Your task to perform on an android device: Open maps Image 0: 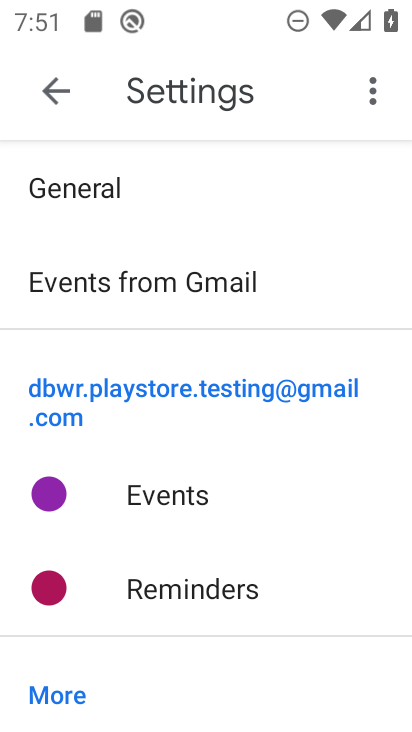
Step 0: press home button
Your task to perform on an android device: Open maps Image 1: 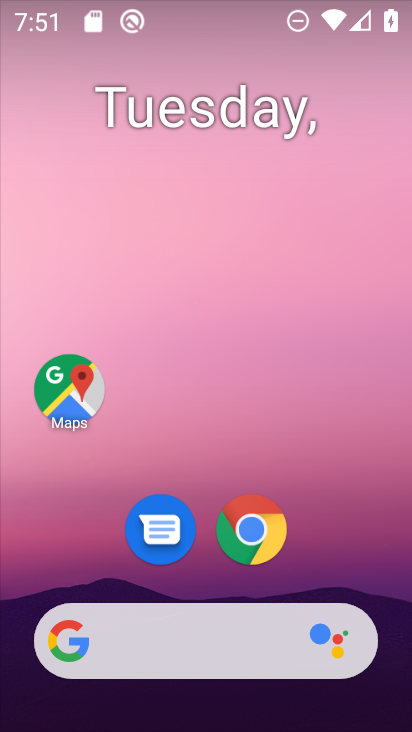
Step 1: drag from (165, 605) to (314, 67)
Your task to perform on an android device: Open maps Image 2: 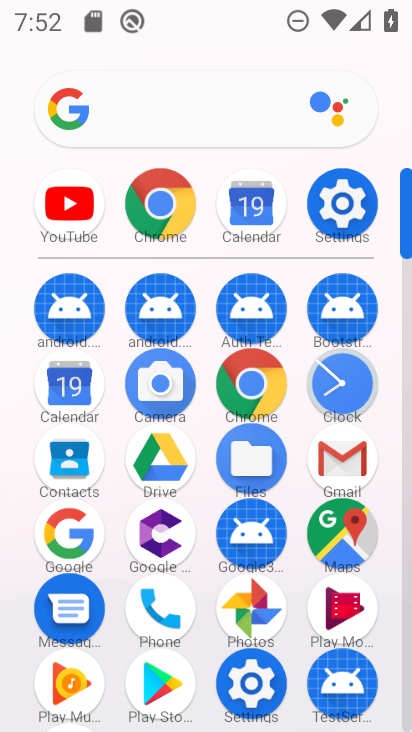
Step 2: drag from (206, 602) to (343, 189)
Your task to perform on an android device: Open maps Image 3: 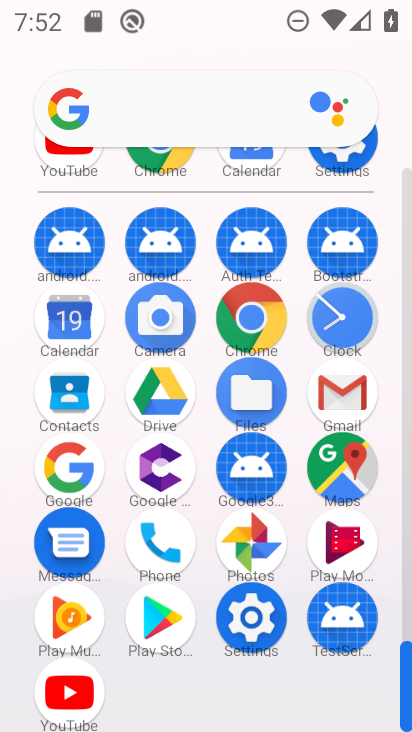
Step 3: drag from (208, 201) to (161, 635)
Your task to perform on an android device: Open maps Image 4: 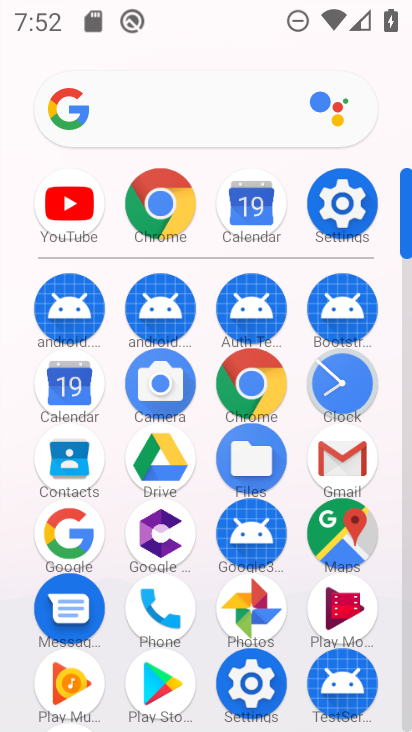
Step 4: click (343, 541)
Your task to perform on an android device: Open maps Image 5: 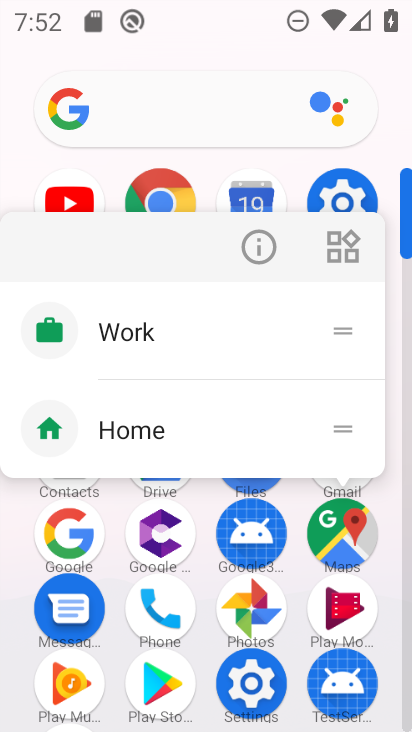
Step 5: click (342, 537)
Your task to perform on an android device: Open maps Image 6: 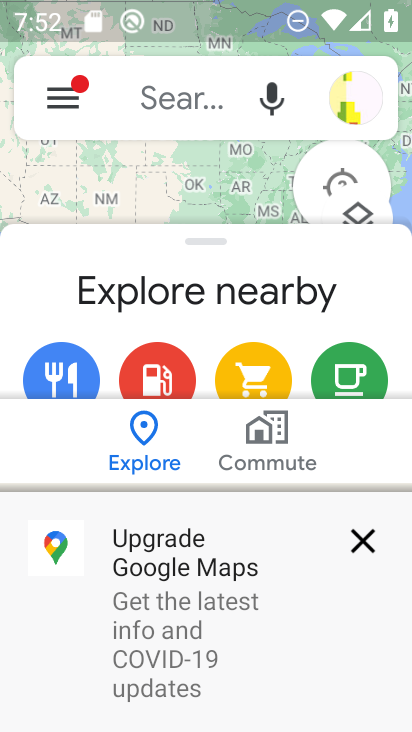
Step 6: click (358, 537)
Your task to perform on an android device: Open maps Image 7: 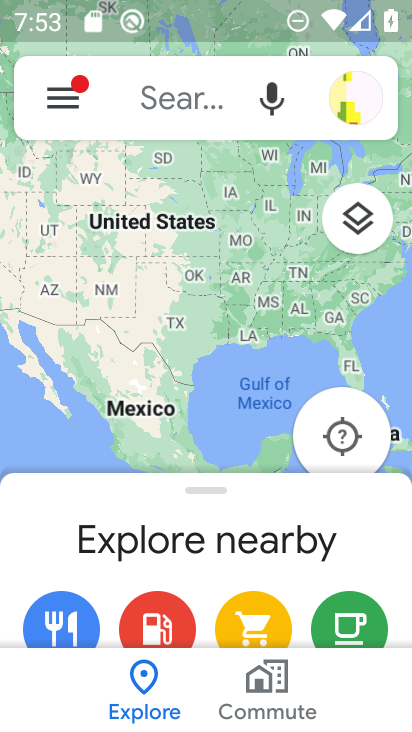
Step 7: task complete